Your task to perform on an android device: turn off notifications settings in the gmail app Image 0: 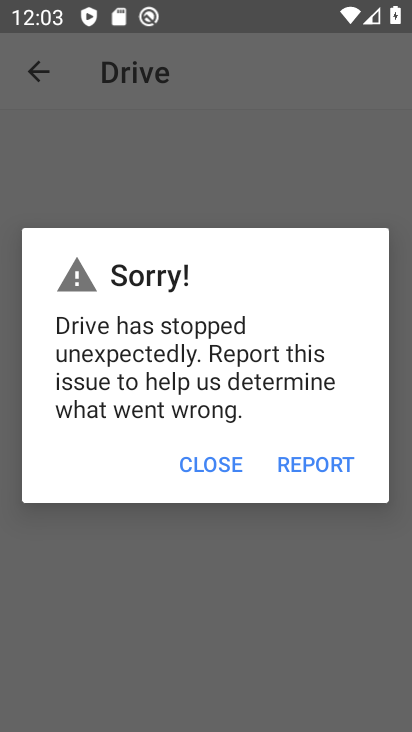
Step 0: task complete